Your task to perform on an android device: clear all cookies in the chrome app Image 0: 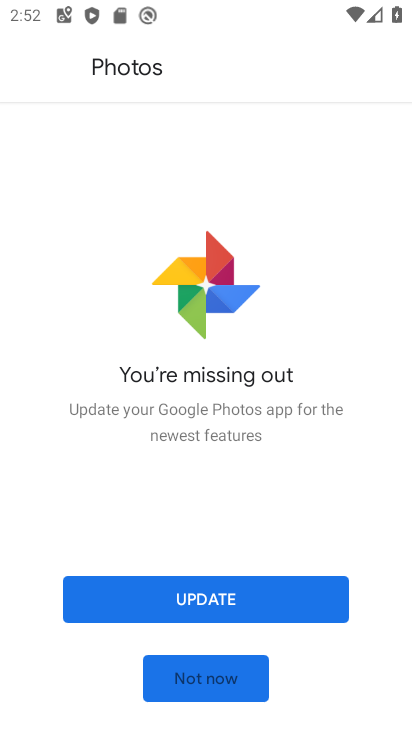
Step 0: press home button
Your task to perform on an android device: clear all cookies in the chrome app Image 1: 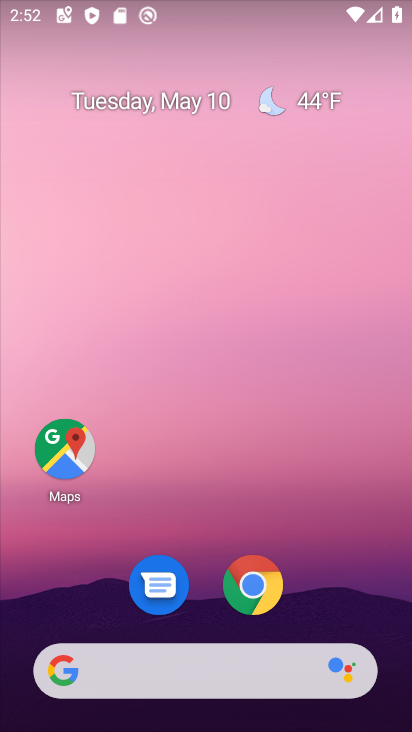
Step 1: click (255, 571)
Your task to perform on an android device: clear all cookies in the chrome app Image 2: 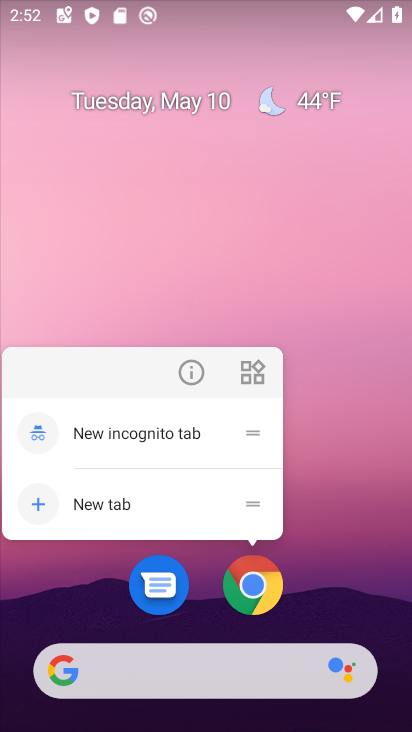
Step 2: click (255, 573)
Your task to perform on an android device: clear all cookies in the chrome app Image 3: 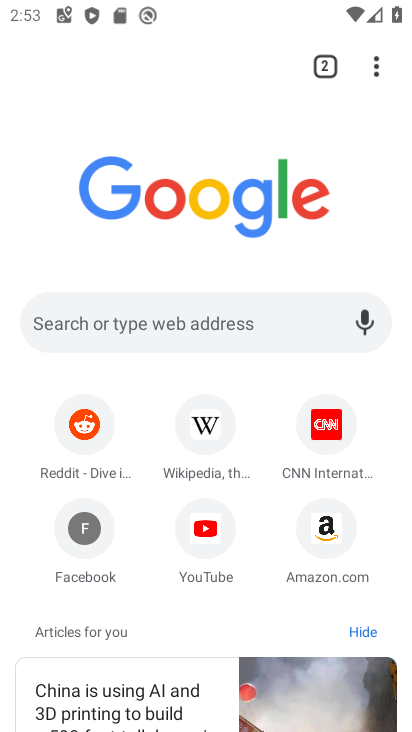
Step 3: click (371, 69)
Your task to perform on an android device: clear all cookies in the chrome app Image 4: 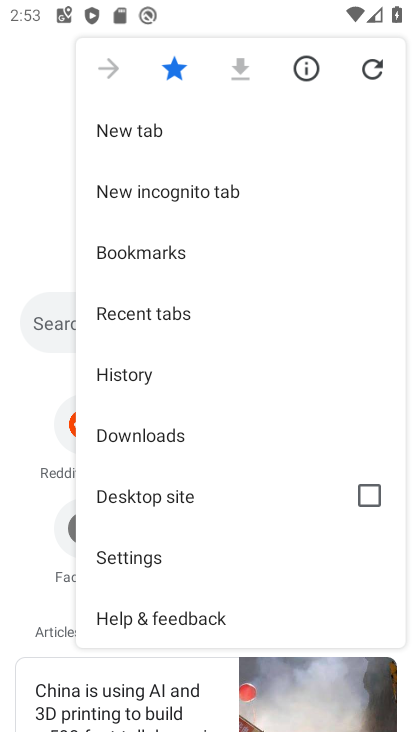
Step 4: click (157, 555)
Your task to perform on an android device: clear all cookies in the chrome app Image 5: 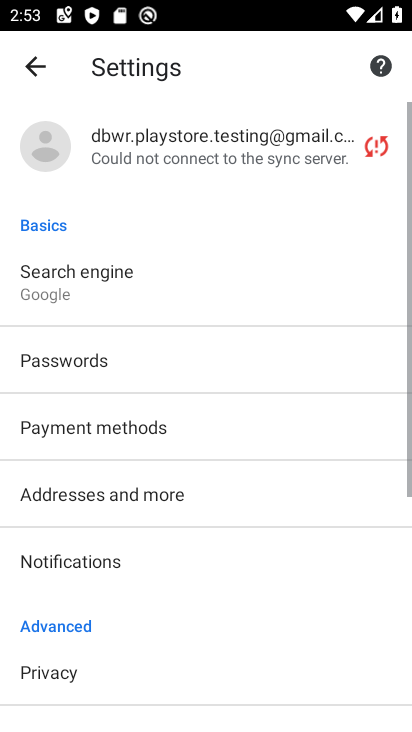
Step 5: drag from (157, 571) to (182, 339)
Your task to perform on an android device: clear all cookies in the chrome app Image 6: 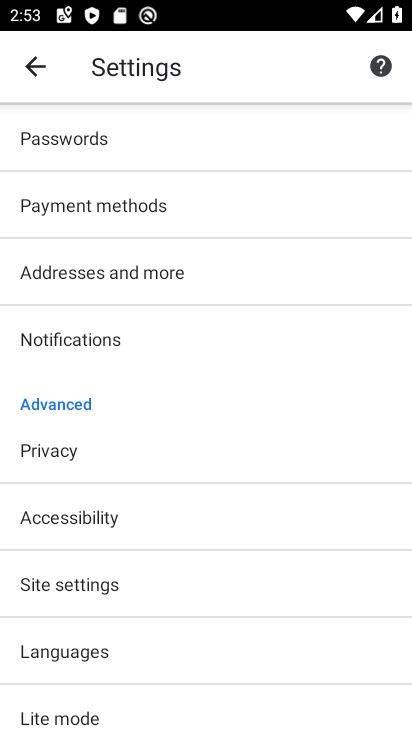
Step 6: click (121, 462)
Your task to perform on an android device: clear all cookies in the chrome app Image 7: 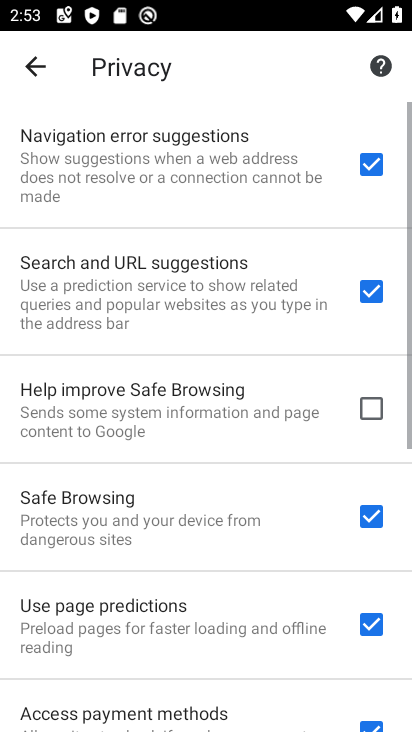
Step 7: drag from (208, 632) to (234, 101)
Your task to perform on an android device: clear all cookies in the chrome app Image 8: 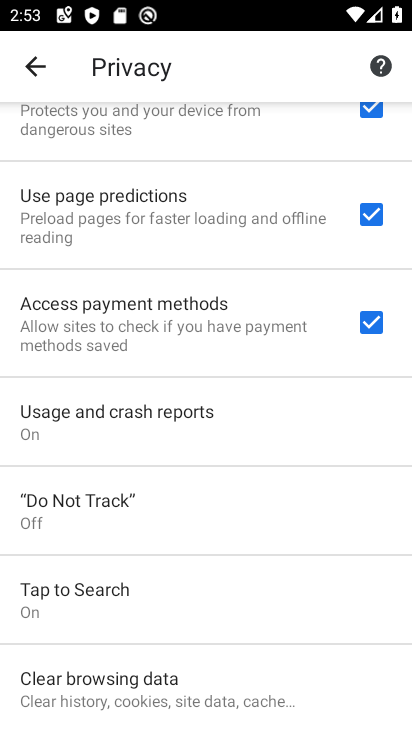
Step 8: drag from (243, 613) to (241, 324)
Your task to perform on an android device: clear all cookies in the chrome app Image 9: 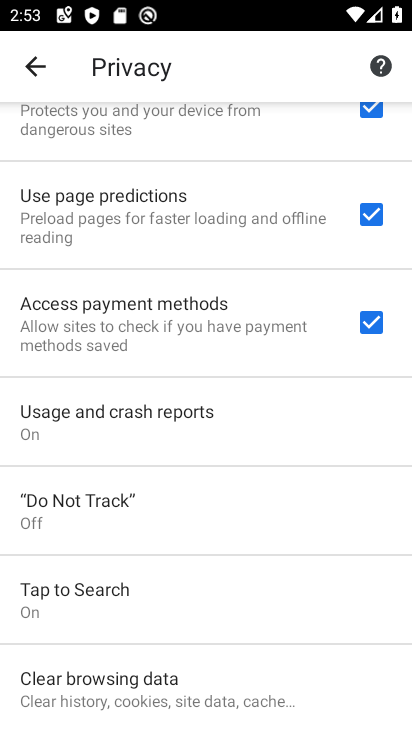
Step 9: click (166, 690)
Your task to perform on an android device: clear all cookies in the chrome app Image 10: 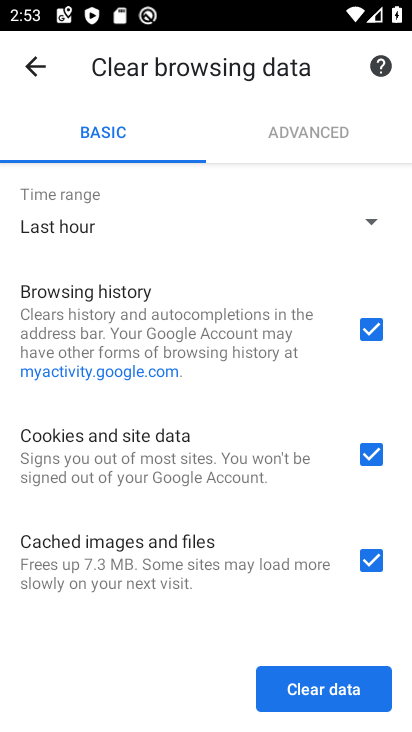
Step 10: click (371, 562)
Your task to perform on an android device: clear all cookies in the chrome app Image 11: 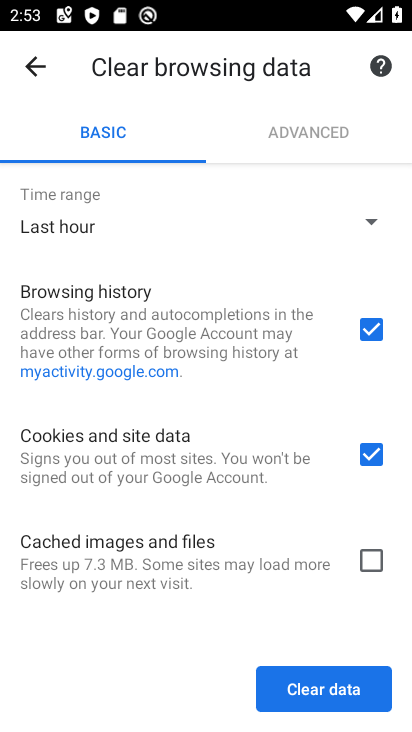
Step 11: click (378, 319)
Your task to perform on an android device: clear all cookies in the chrome app Image 12: 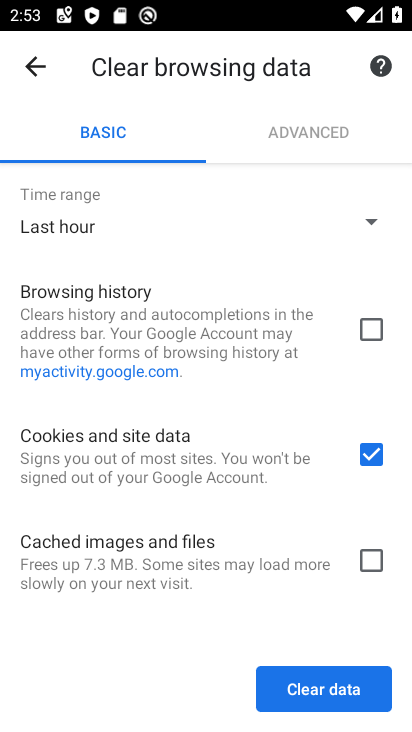
Step 12: click (345, 685)
Your task to perform on an android device: clear all cookies in the chrome app Image 13: 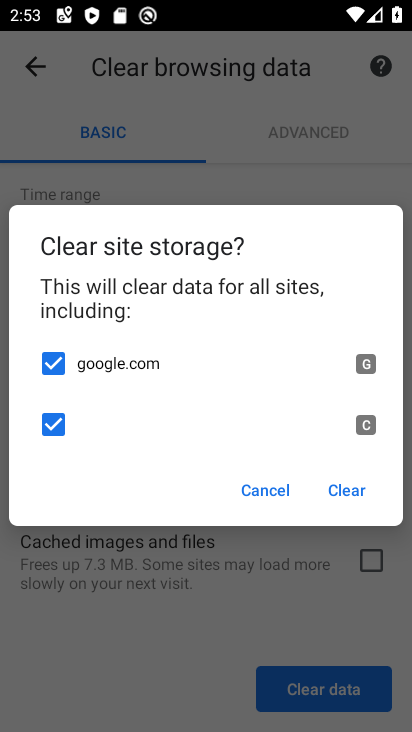
Step 13: click (352, 488)
Your task to perform on an android device: clear all cookies in the chrome app Image 14: 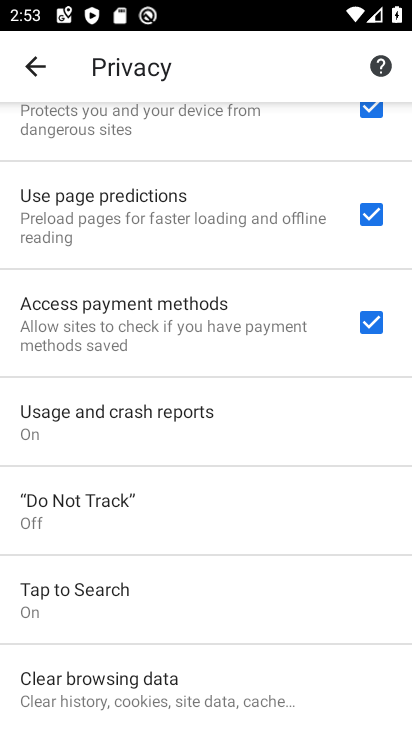
Step 14: task complete